Your task to perform on an android device: Go to Wikipedia Image 0: 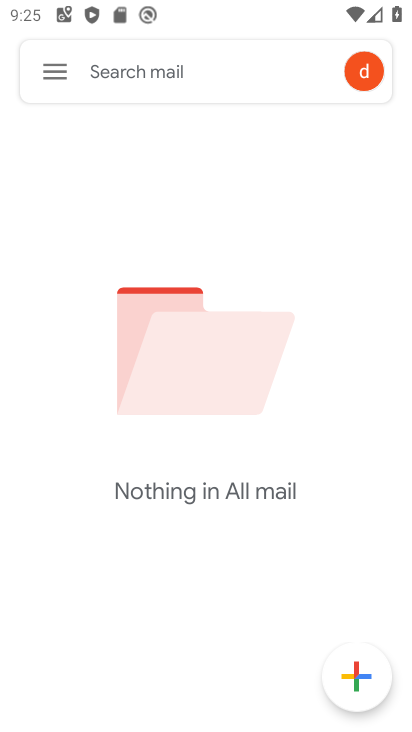
Step 0: press home button
Your task to perform on an android device: Go to Wikipedia Image 1: 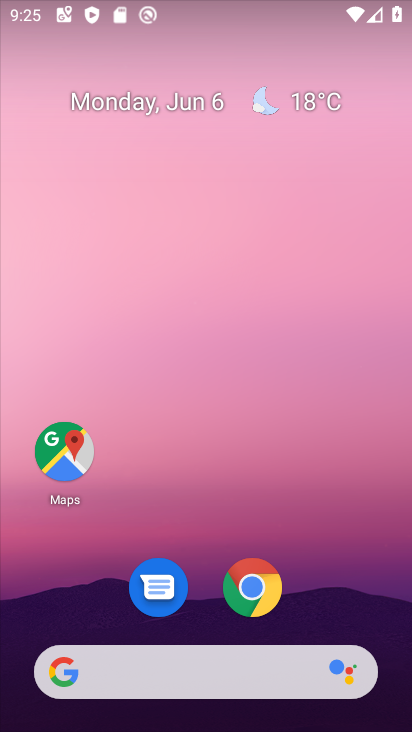
Step 1: press home button
Your task to perform on an android device: Go to Wikipedia Image 2: 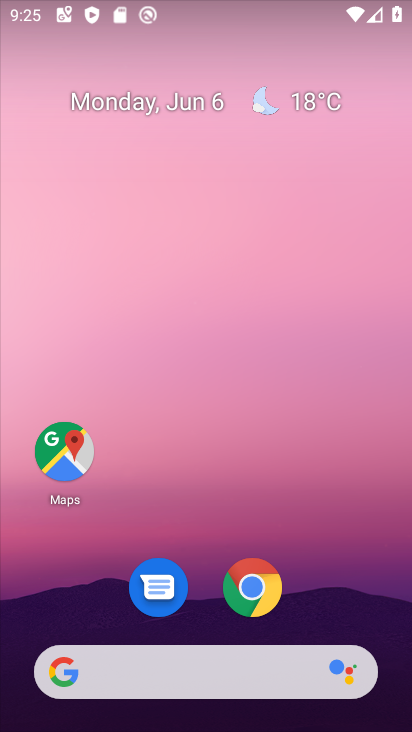
Step 2: click (250, 586)
Your task to perform on an android device: Go to Wikipedia Image 3: 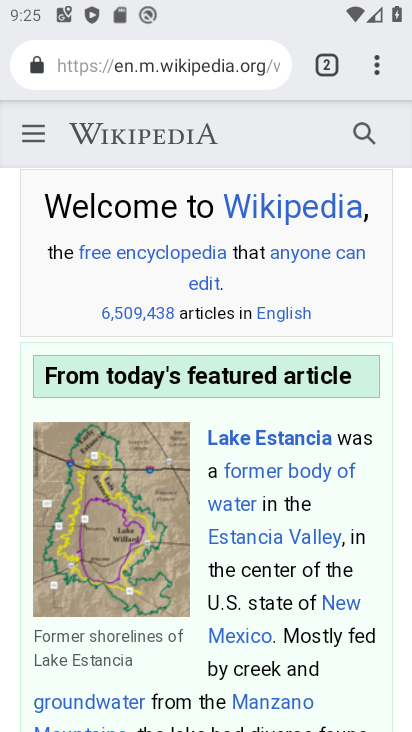
Step 3: task complete